Your task to perform on an android device: Go to Amazon Image 0: 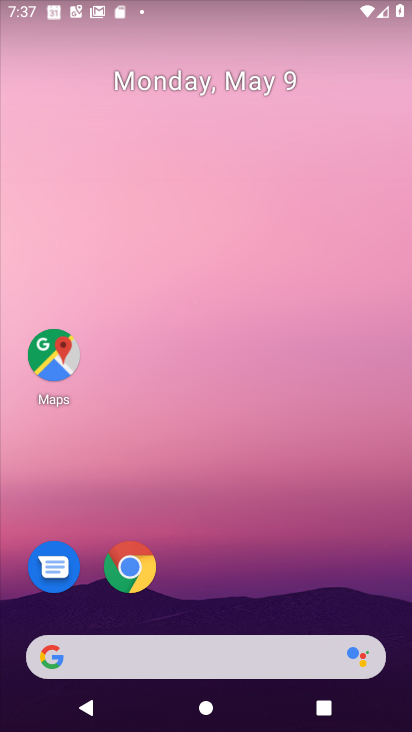
Step 0: click (295, 290)
Your task to perform on an android device: Go to Amazon Image 1: 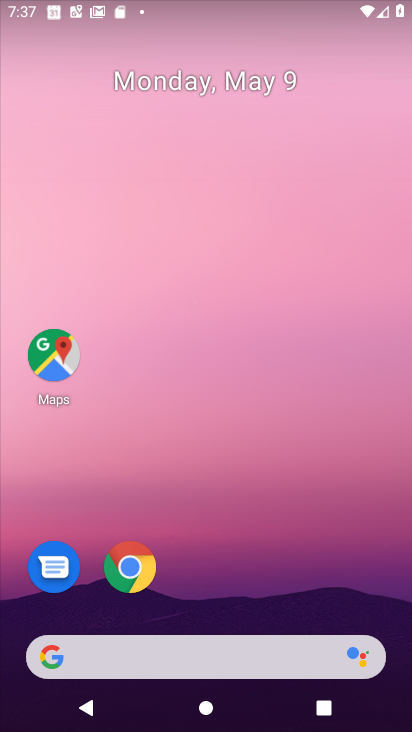
Step 1: drag from (157, 607) to (258, 289)
Your task to perform on an android device: Go to Amazon Image 2: 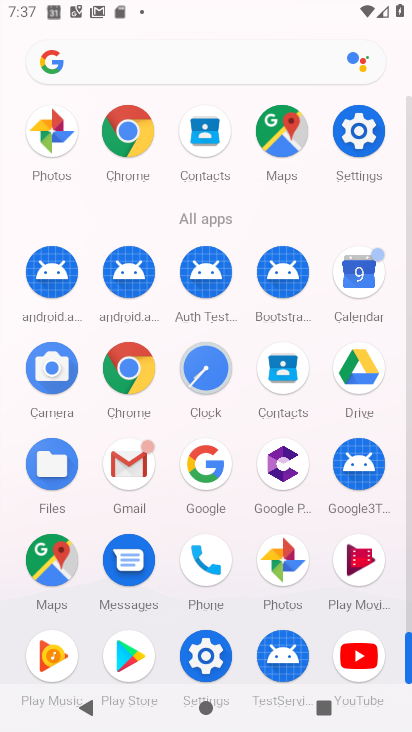
Step 2: click (148, 58)
Your task to perform on an android device: Go to Amazon Image 3: 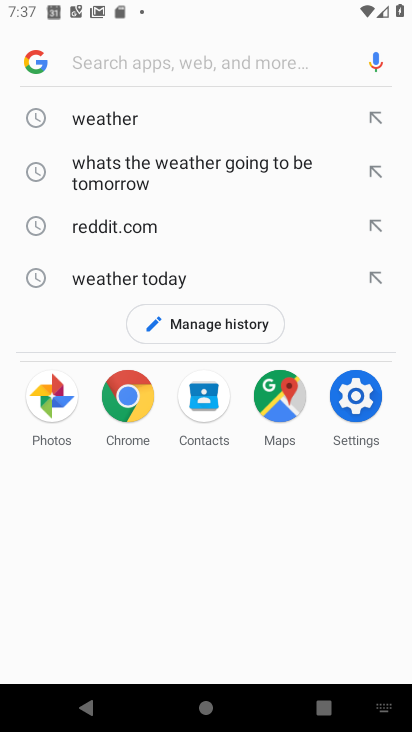
Step 3: type "amazon"
Your task to perform on an android device: Go to Amazon Image 4: 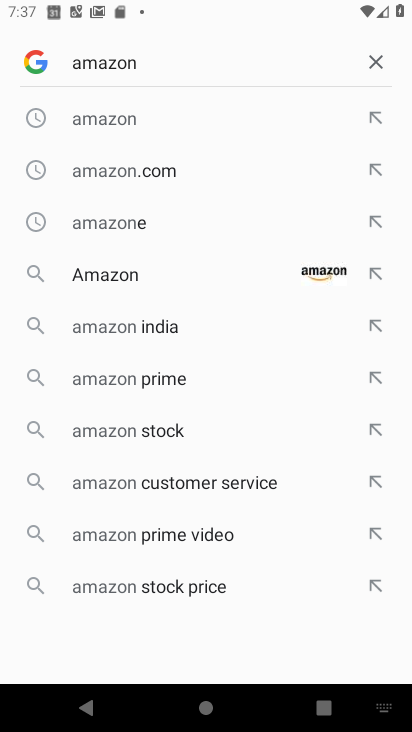
Step 4: click (138, 275)
Your task to perform on an android device: Go to Amazon Image 5: 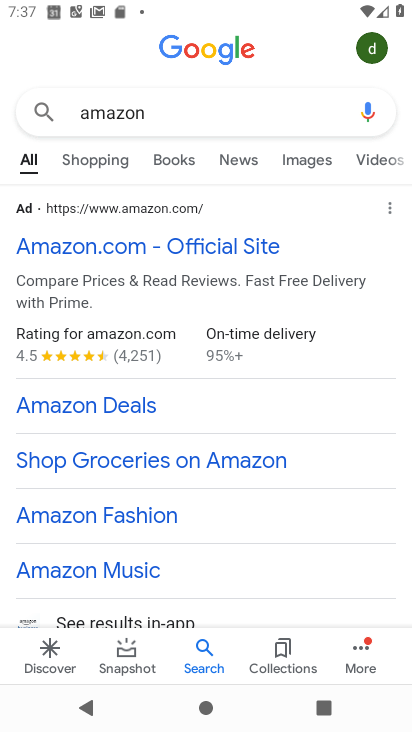
Step 5: drag from (240, 495) to (293, 199)
Your task to perform on an android device: Go to Amazon Image 6: 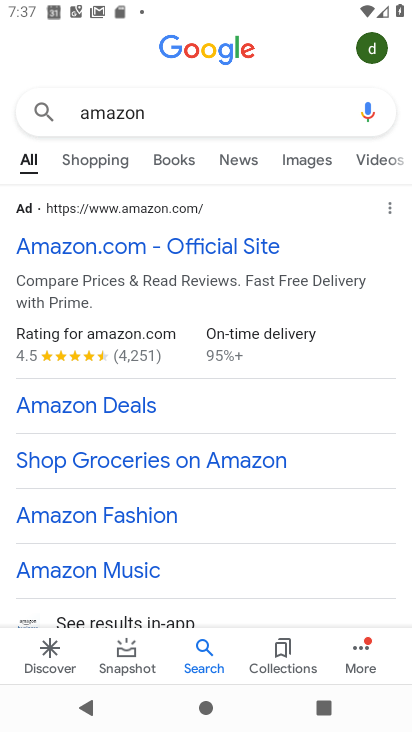
Step 6: drag from (250, 221) to (224, 538)
Your task to perform on an android device: Go to Amazon Image 7: 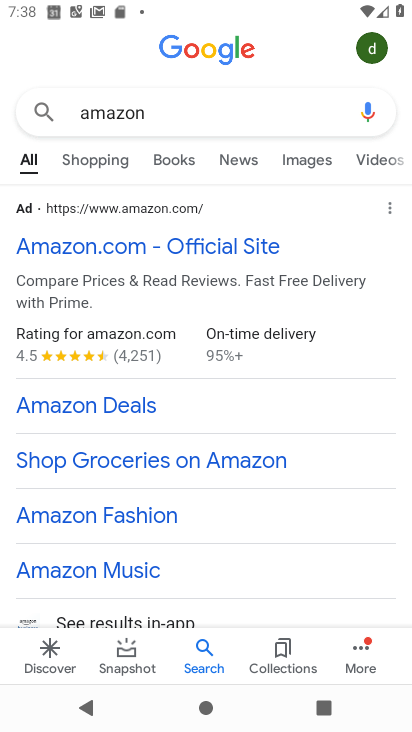
Step 7: drag from (201, 572) to (268, 248)
Your task to perform on an android device: Go to Amazon Image 8: 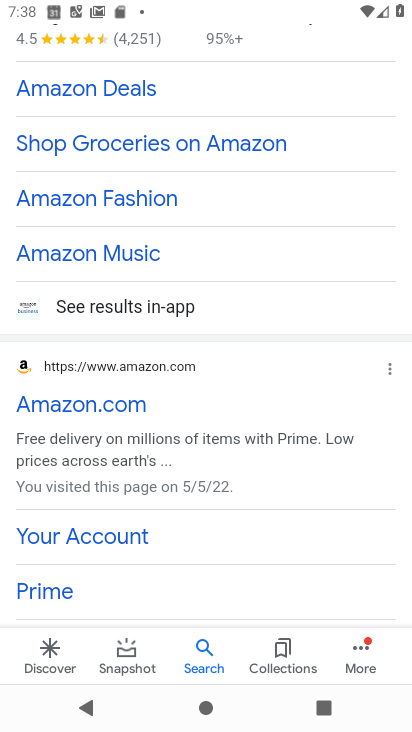
Step 8: drag from (224, 203) to (204, 567)
Your task to perform on an android device: Go to Amazon Image 9: 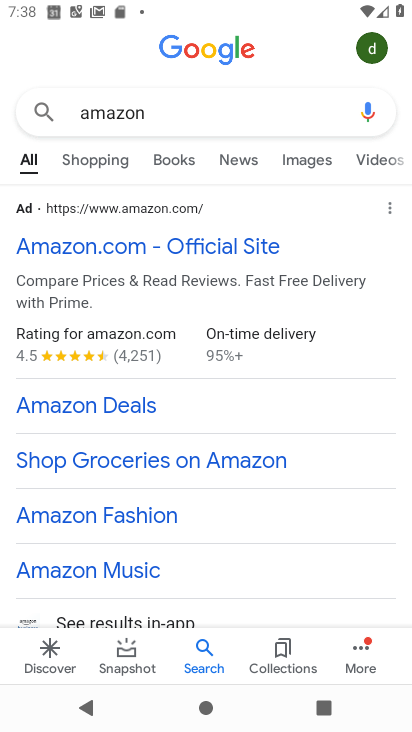
Step 9: drag from (221, 593) to (308, 197)
Your task to perform on an android device: Go to Amazon Image 10: 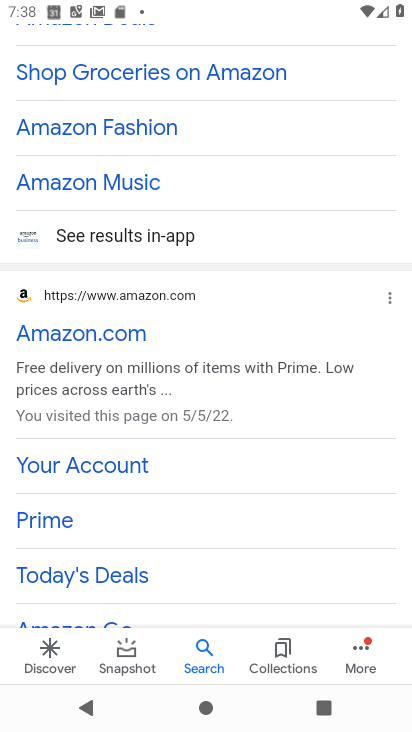
Step 10: drag from (186, 589) to (254, 300)
Your task to perform on an android device: Go to Amazon Image 11: 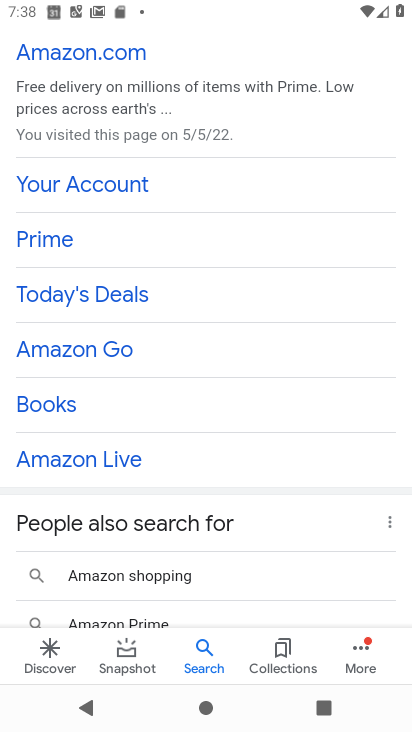
Step 11: drag from (246, 195) to (358, 725)
Your task to perform on an android device: Go to Amazon Image 12: 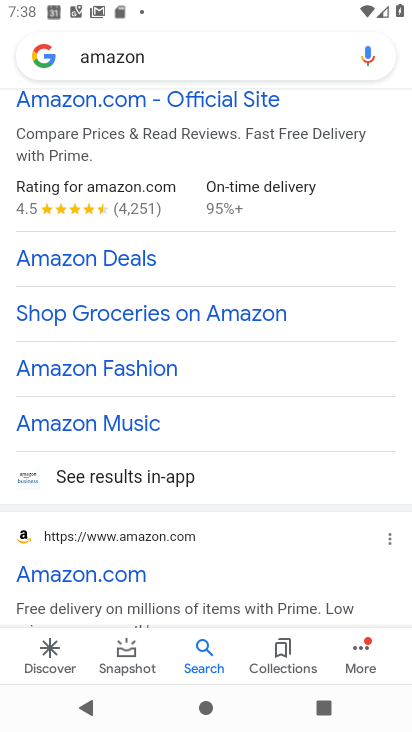
Step 12: drag from (229, 195) to (309, 571)
Your task to perform on an android device: Go to Amazon Image 13: 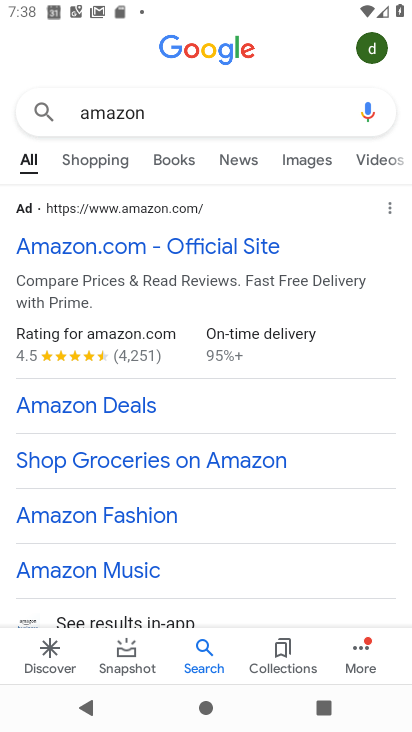
Step 13: drag from (211, 316) to (323, 587)
Your task to perform on an android device: Go to Amazon Image 14: 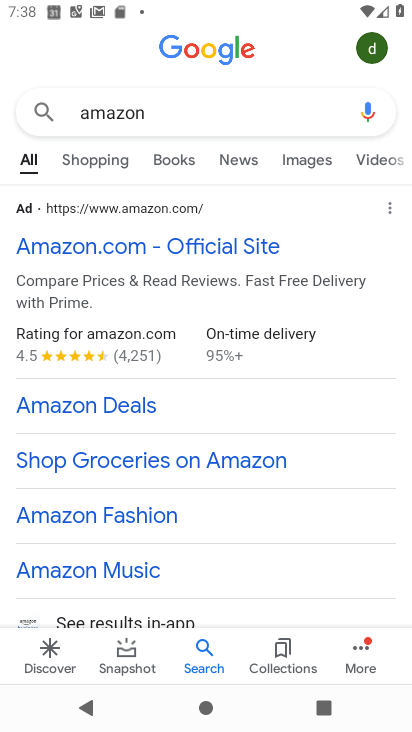
Step 14: drag from (194, 590) to (340, 727)
Your task to perform on an android device: Go to Amazon Image 15: 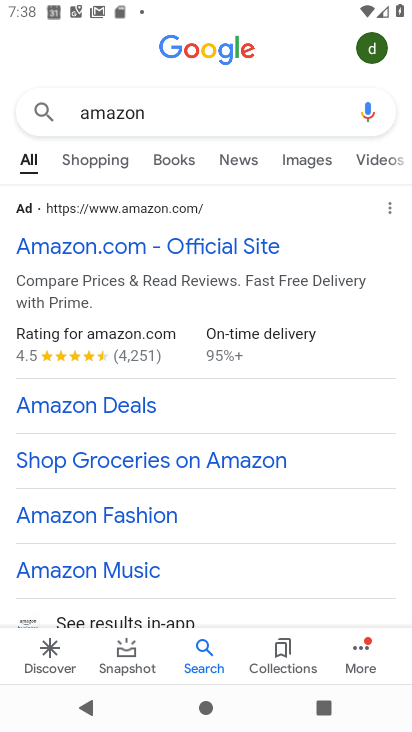
Step 15: drag from (220, 278) to (329, 664)
Your task to perform on an android device: Go to Amazon Image 16: 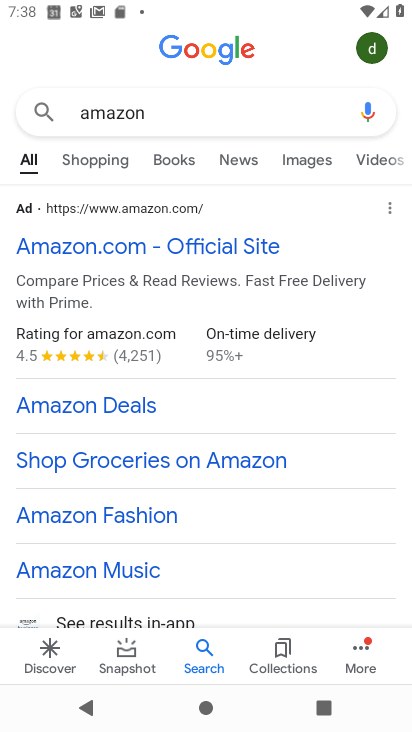
Step 16: click (61, 245)
Your task to perform on an android device: Go to Amazon Image 17: 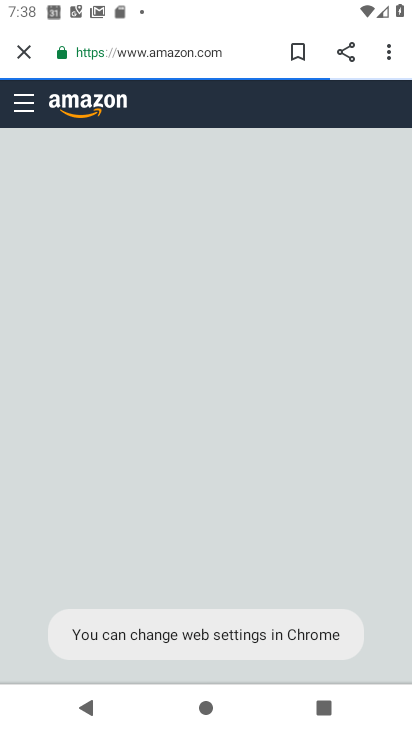
Step 17: task complete